Your task to perform on an android device: What's the weather today? Image 0: 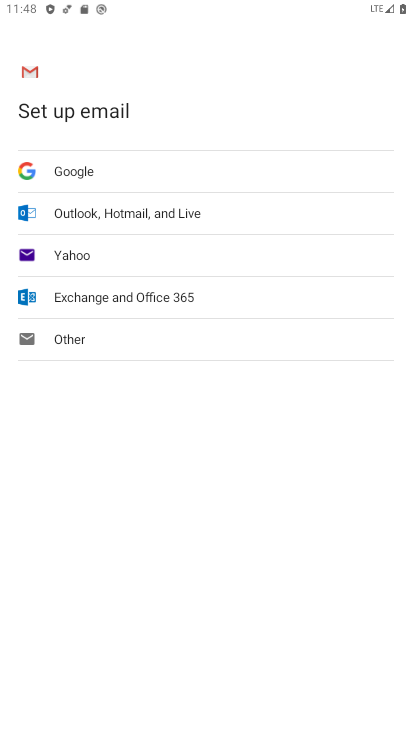
Step 0: press home button
Your task to perform on an android device: What's the weather today? Image 1: 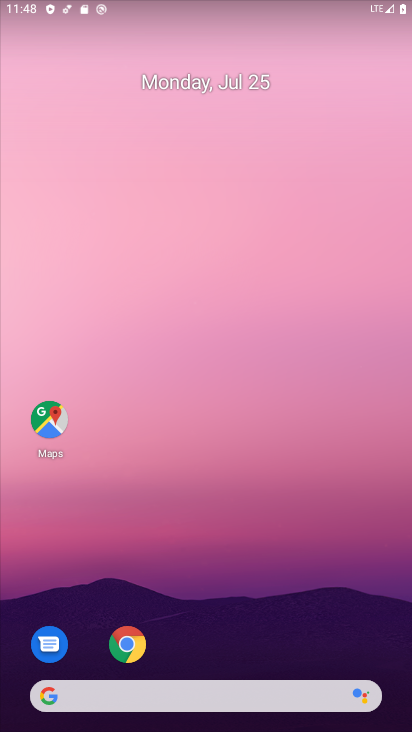
Step 1: click (142, 697)
Your task to perform on an android device: What's the weather today? Image 2: 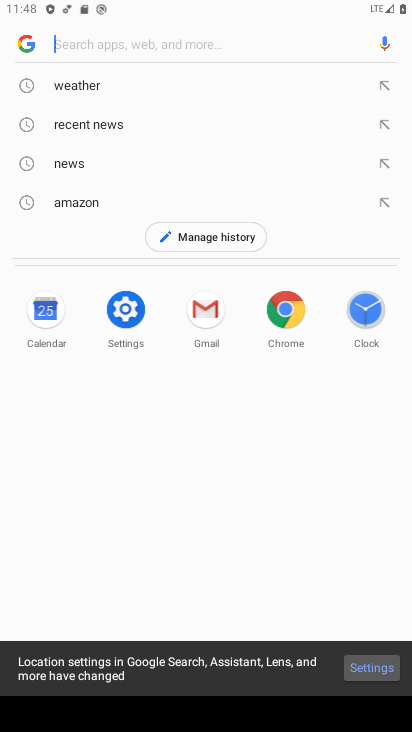
Step 2: type "What's the weather today?"
Your task to perform on an android device: What's the weather today? Image 3: 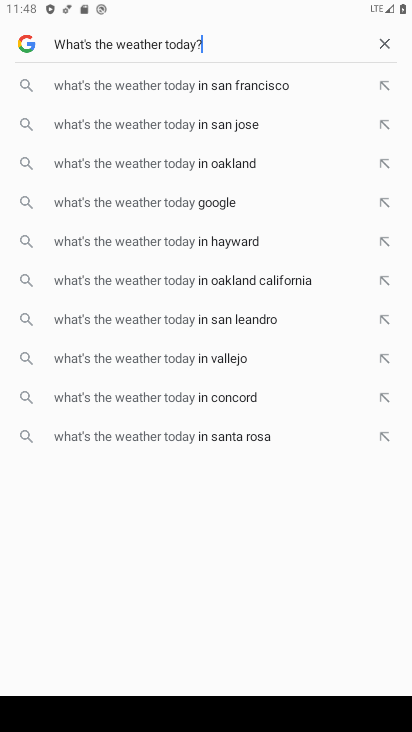
Step 3: press enter
Your task to perform on an android device: What's the weather today? Image 4: 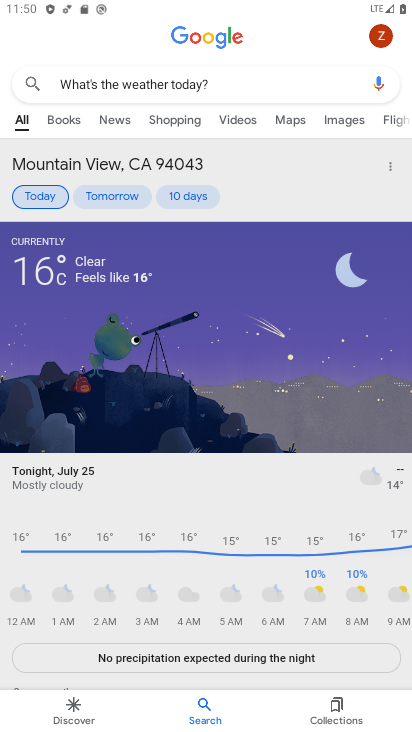
Step 4: task complete